Your task to perform on an android device: Clear the shopping cart on target.com. Image 0: 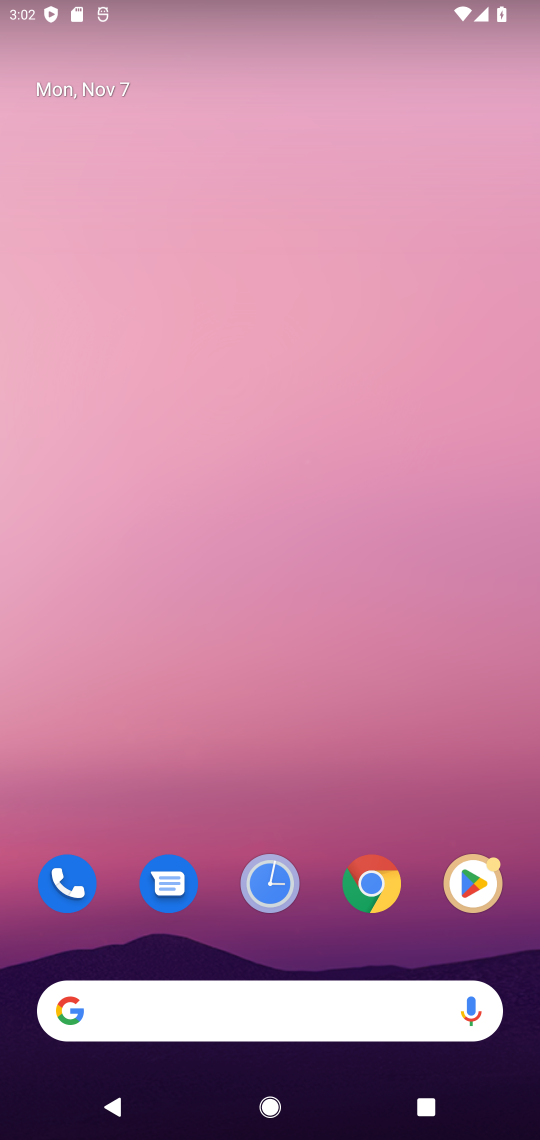
Step 0: click (373, 877)
Your task to perform on an android device: Clear the shopping cart on target.com. Image 1: 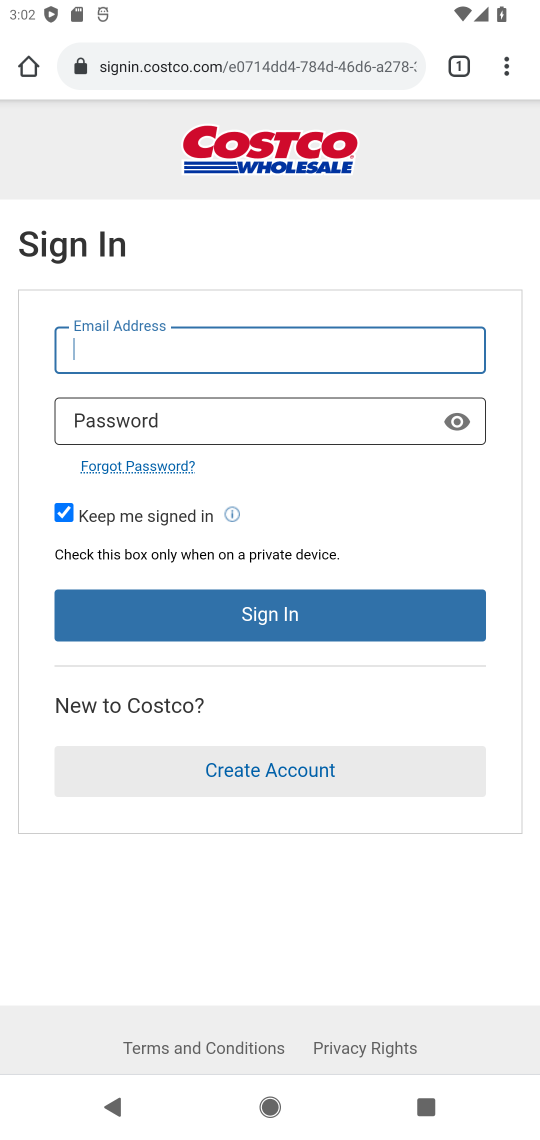
Step 1: click (311, 58)
Your task to perform on an android device: Clear the shopping cart on target.com. Image 2: 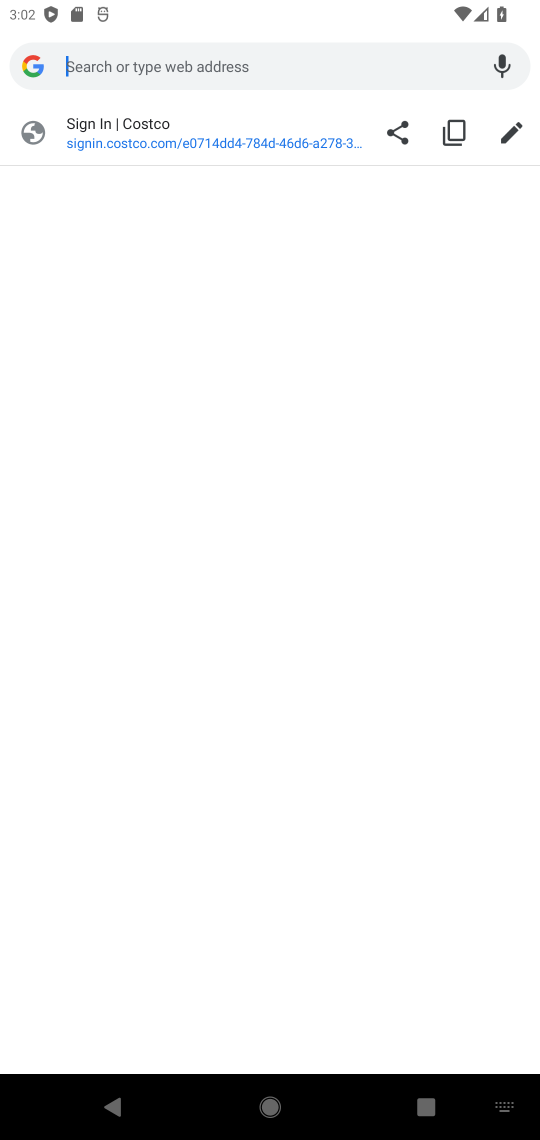
Step 2: type " target.com"
Your task to perform on an android device: Clear the shopping cart on target.com. Image 3: 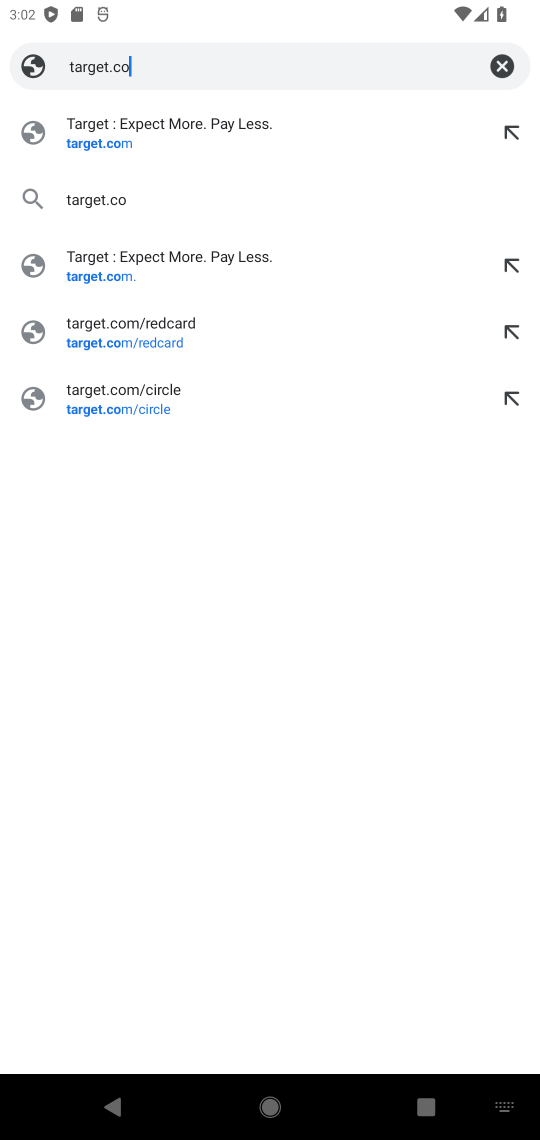
Step 3: press enter
Your task to perform on an android device: Clear the shopping cart on target.com. Image 4: 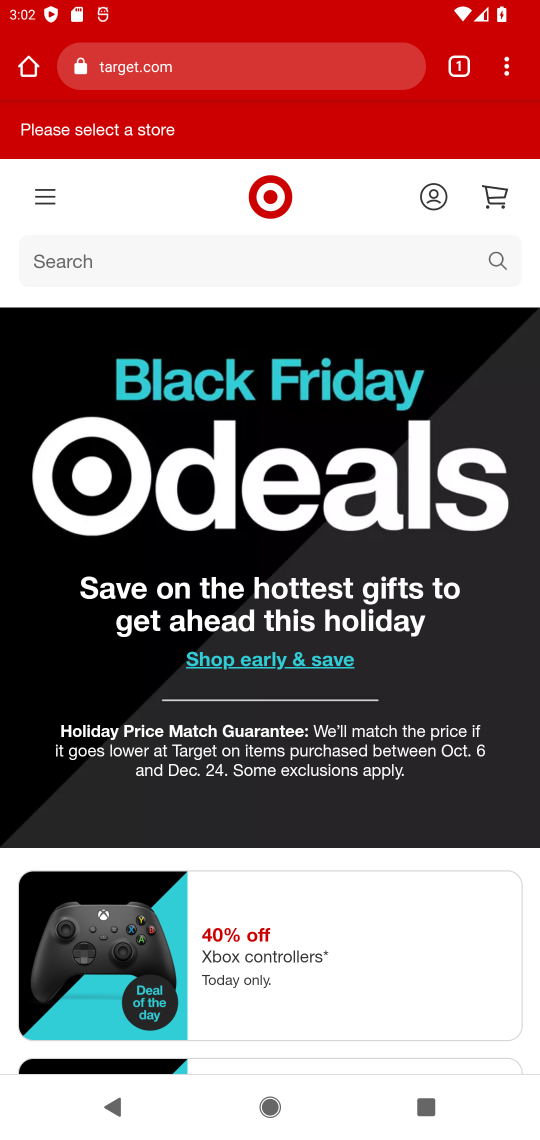
Step 4: click (494, 192)
Your task to perform on an android device: Clear the shopping cart on target.com. Image 5: 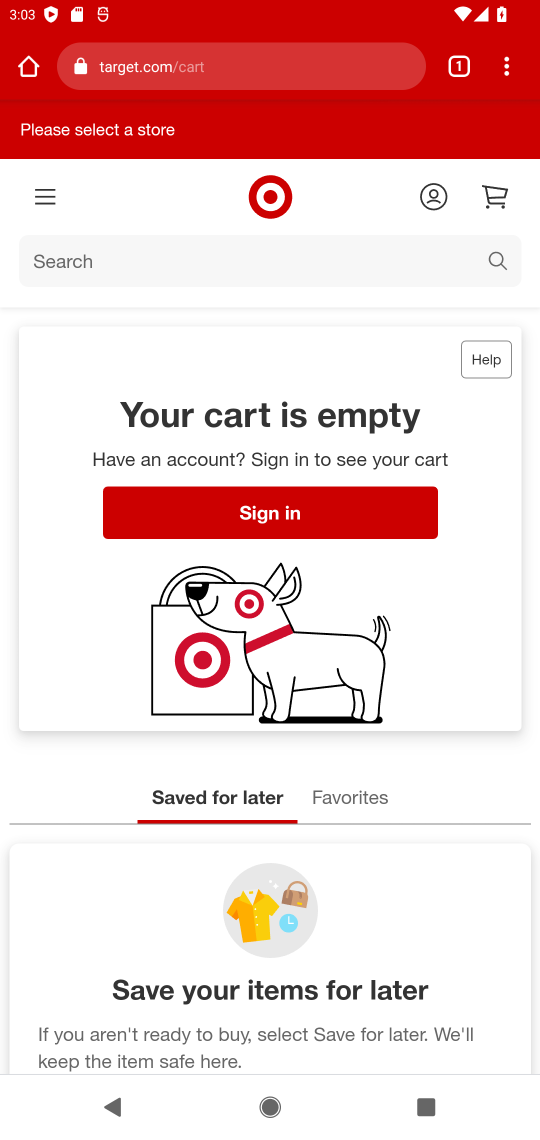
Step 5: task complete